Your task to perform on an android device: install app "Spotify: Music and Podcasts" Image 0: 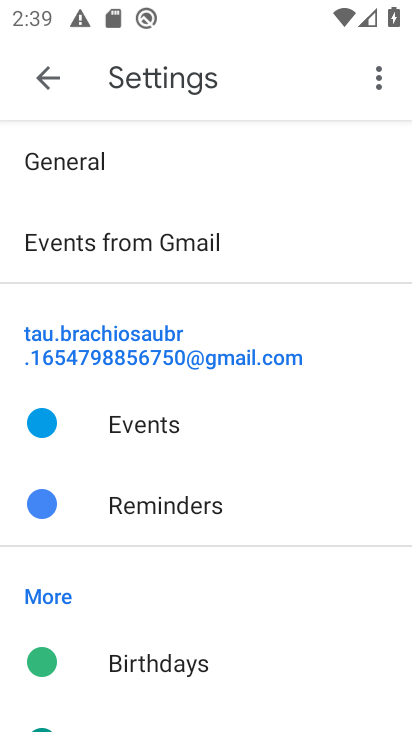
Step 0: press home button
Your task to perform on an android device: install app "Spotify: Music and Podcasts" Image 1: 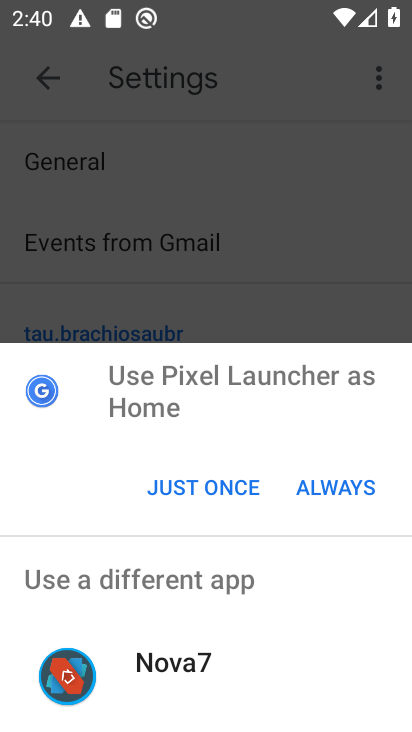
Step 1: click (216, 479)
Your task to perform on an android device: install app "Spotify: Music and Podcasts" Image 2: 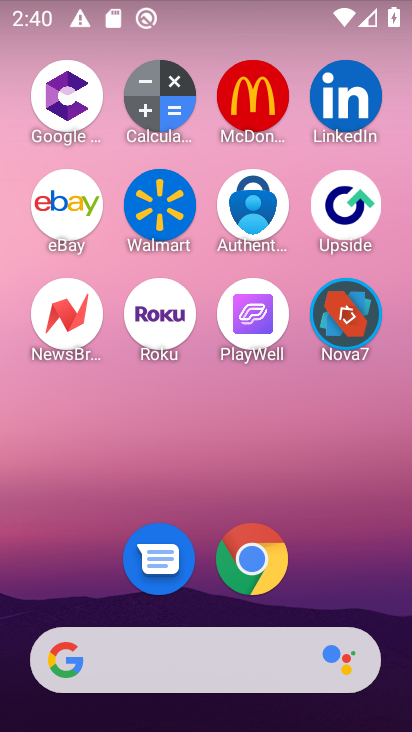
Step 2: drag from (129, 462) to (132, 123)
Your task to perform on an android device: install app "Spotify: Music and Podcasts" Image 3: 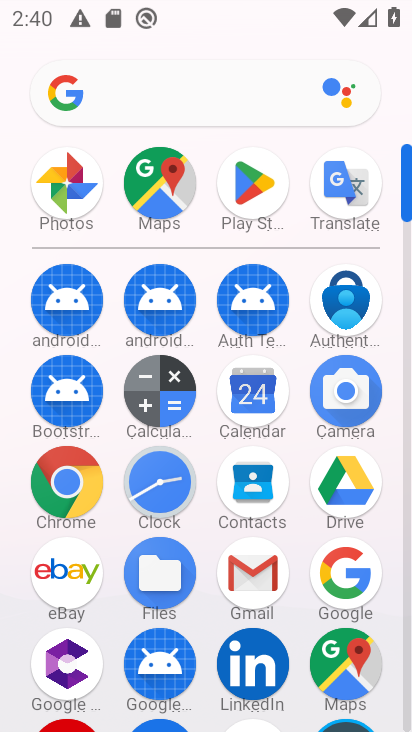
Step 3: click (263, 179)
Your task to perform on an android device: install app "Spotify: Music and Podcasts" Image 4: 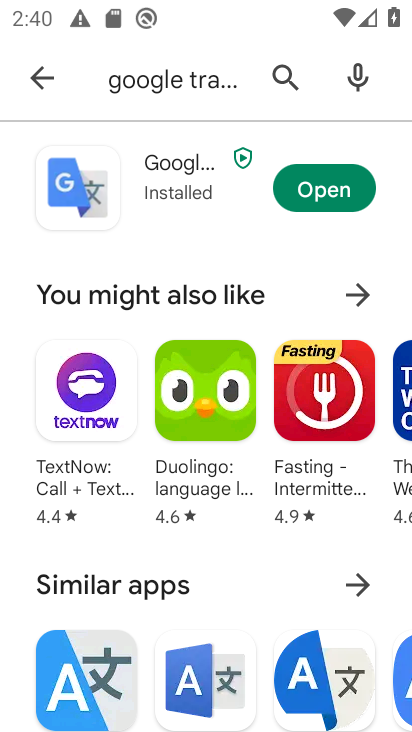
Step 4: click (281, 75)
Your task to perform on an android device: install app "Spotify: Music and Podcasts" Image 5: 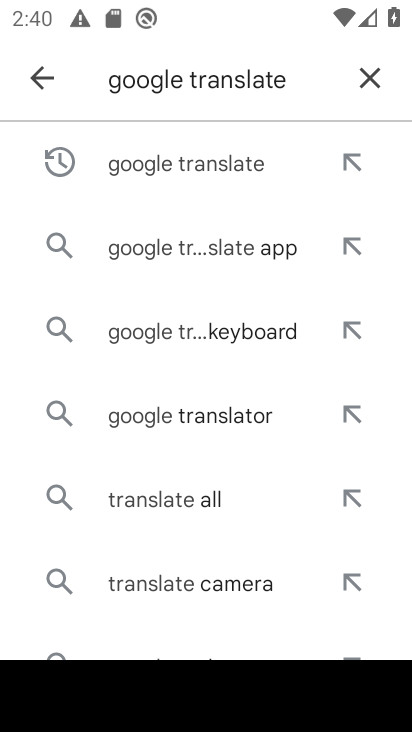
Step 5: click (362, 83)
Your task to perform on an android device: install app "Spotify: Music and Podcasts" Image 6: 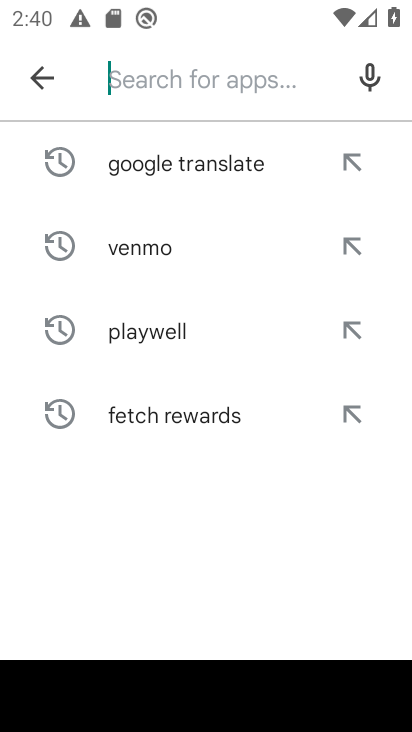
Step 6: type "Spotify: Music and Podcasts"
Your task to perform on an android device: install app "Spotify: Music and Podcasts" Image 7: 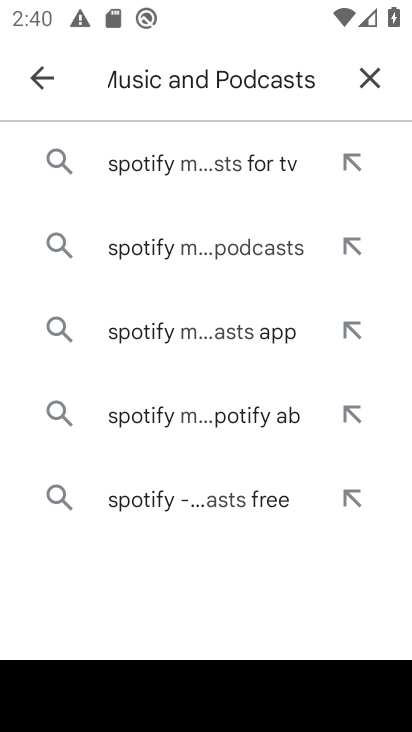
Step 7: click (127, 163)
Your task to perform on an android device: install app "Spotify: Music and Podcasts" Image 8: 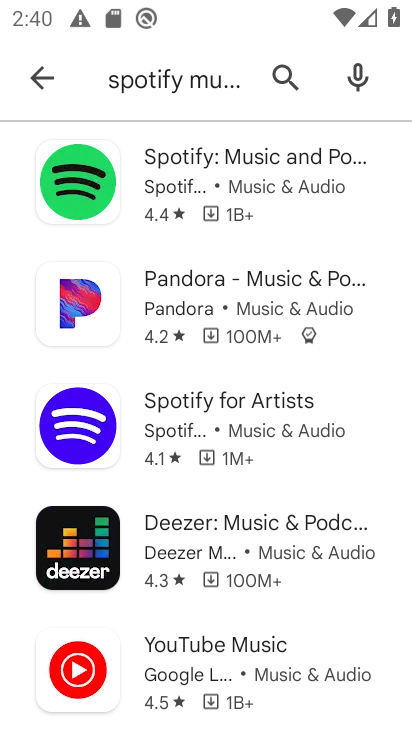
Step 8: click (264, 172)
Your task to perform on an android device: install app "Spotify: Music and Podcasts" Image 9: 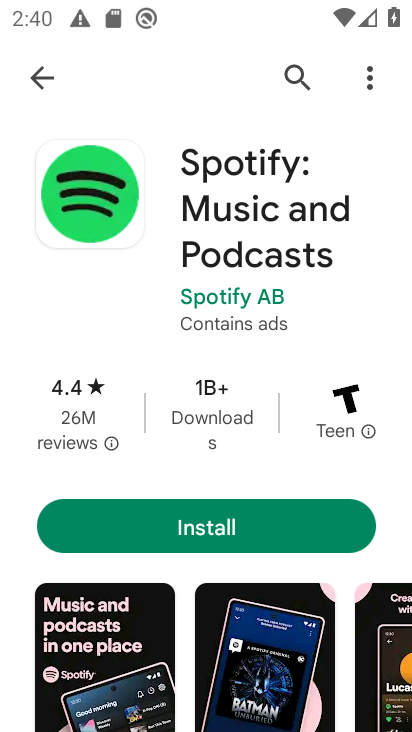
Step 9: click (167, 529)
Your task to perform on an android device: install app "Spotify: Music and Podcasts" Image 10: 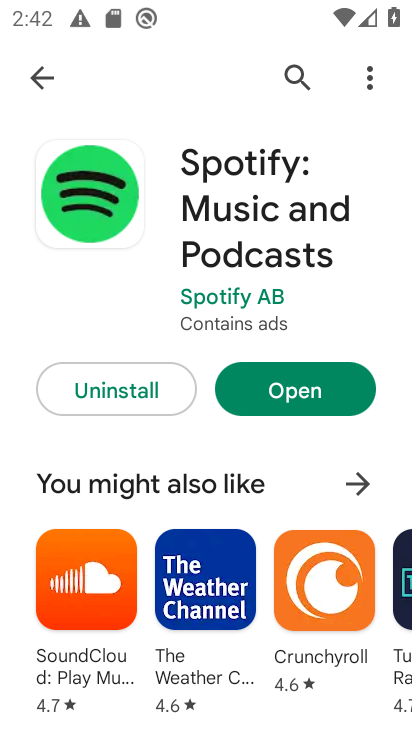
Step 10: click (337, 393)
Your task to perform on an android device: install app "Spotify: Music and Podcasts" Image 11: 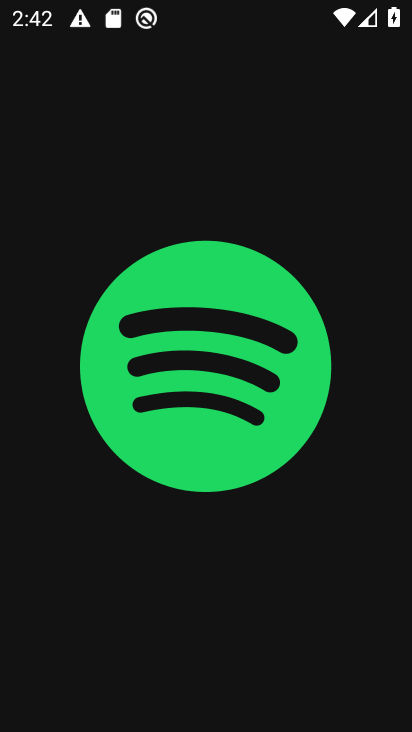
Step 11: task complete